Your task to perform on an android device: turn off javascript in the chrome app Image 0: 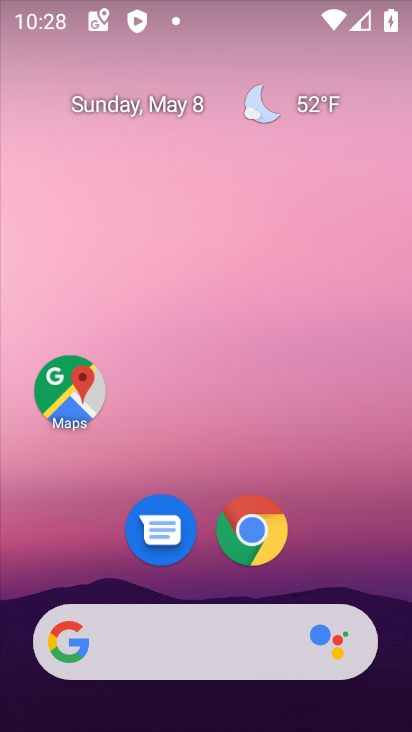
Step 0: drag from (353, 556) to (349, 122)
Your task to perform on an android device: turn off javascript in the chrome app Image 1: 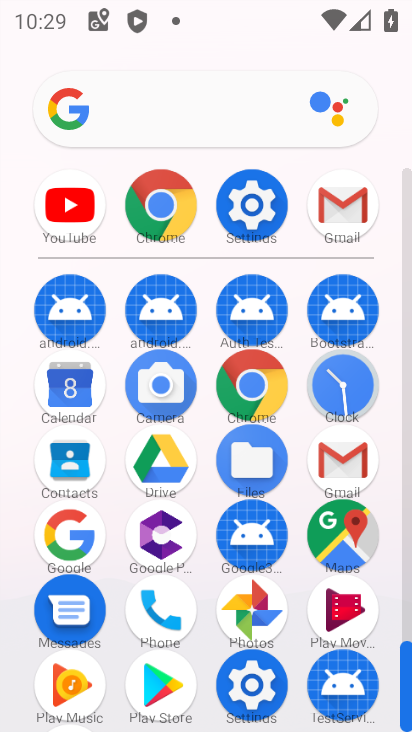
Step 1: drag from (284, 594) to (284, 242)
Your task to perform on an android device: turn off javascript in the chrome app Image 2: 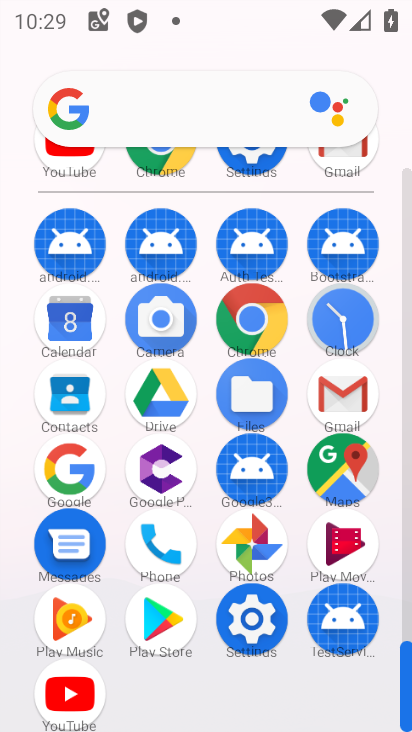
Step 2: click (261, 323)
Your task to perform on an android device: turn off javascript in the chrome app Image 3: 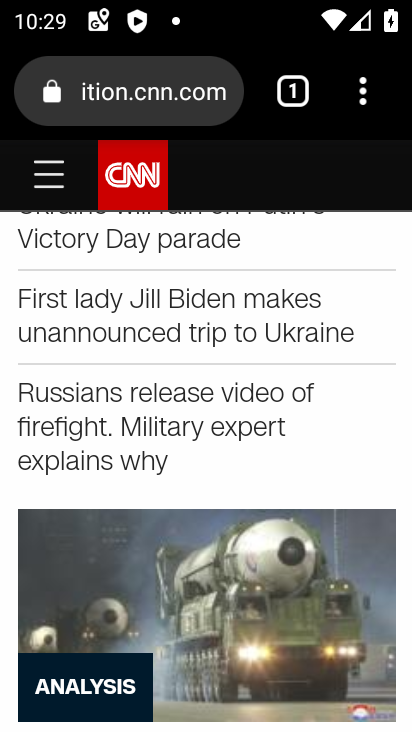
Step 3: drag from (359, 111) to (251, 568)
Your task to perform on an android device: turn off javascript in the chrome app Image 4: 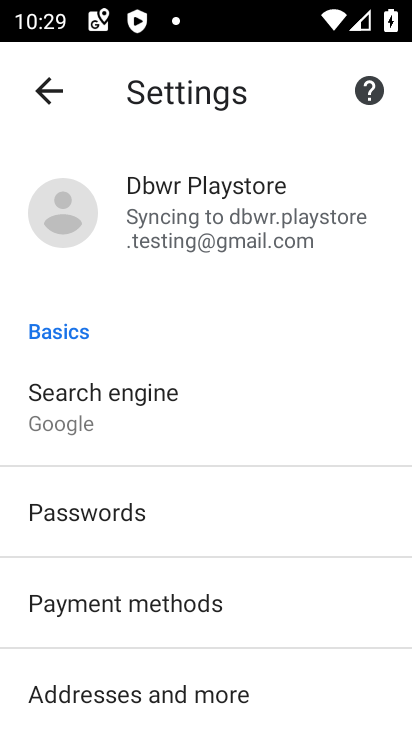
Step 4: drag from (237, 616) to (247, 320)
Your task to perform on an android device: turn off javascript in the chrome app Image 5: 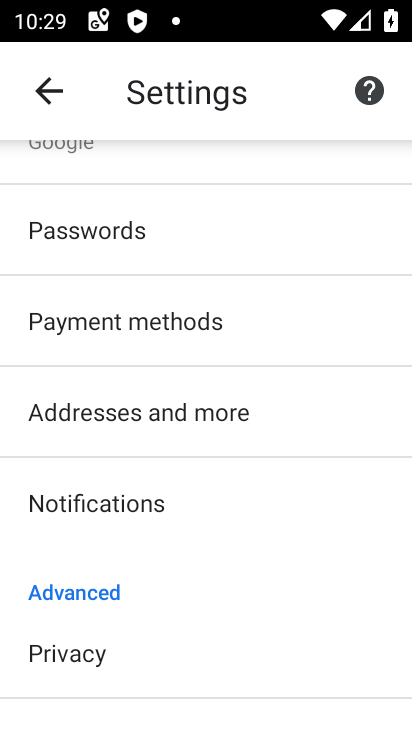
Step 5: drag from (247, 621) to (275, 361)
Your task to perform on an android device: turn off javascript in the chrome app Image 6: 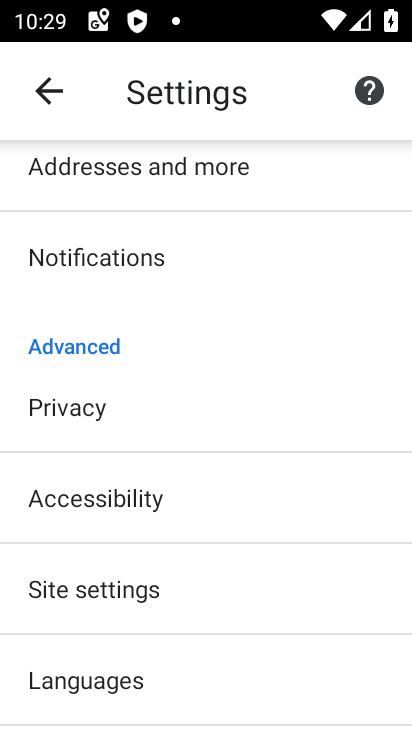
Step 6: drag from (237, 689) to (260, 441)
Your task to perform on an android device: turn off javascript in the chrome app Image 7: 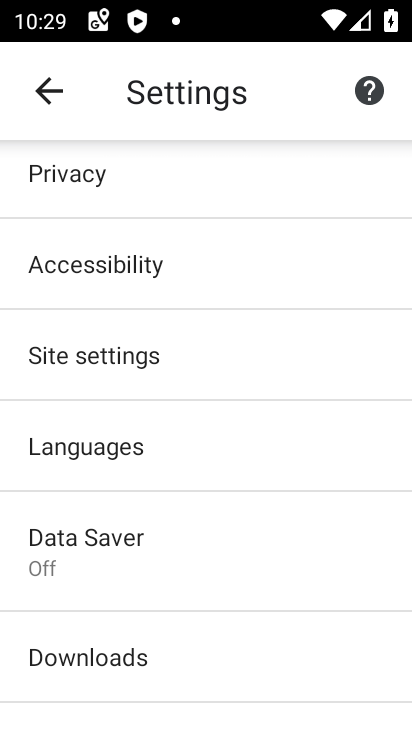
Step 7: drag from (208, 663) to (240, 383)
Your task to perform on an android device: turn off javascript in the chrome app Image 8: 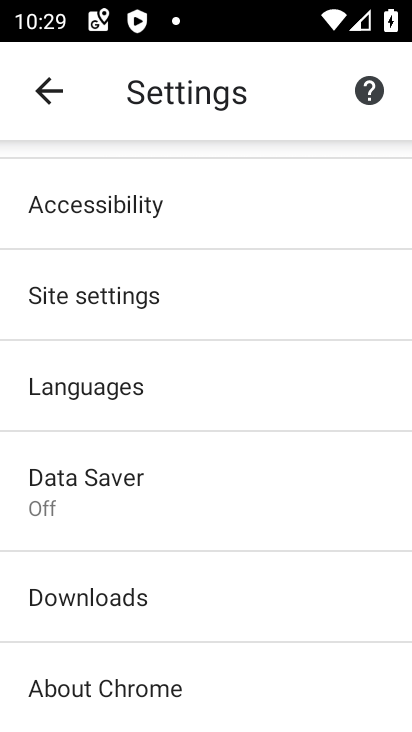
Step 8: click (154, 306)
Your task to perform on an android device: turn off javascript in the chrome app Image 9: 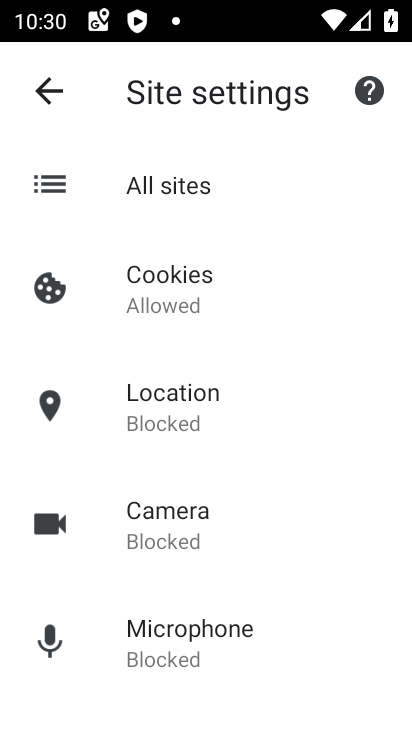
Step 9: drag from (259, 656) to (260, 384)
Your task to perform on an android device: turn off javascript in the chrome app Image 10: 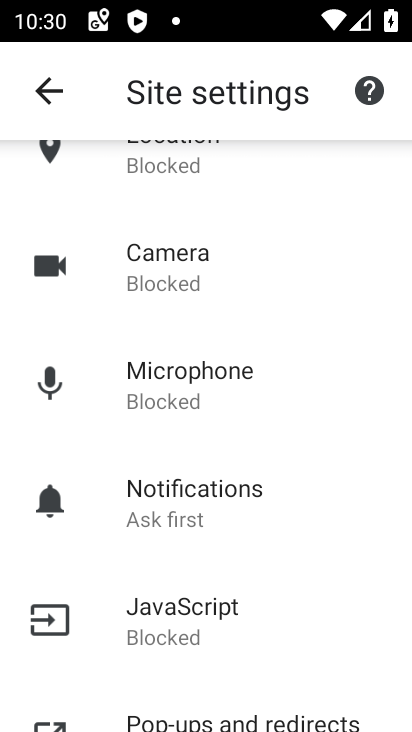
Step 10: click (252, 608)
Your task to perform on an android device: turn off javascript in the chrome app Image 11: 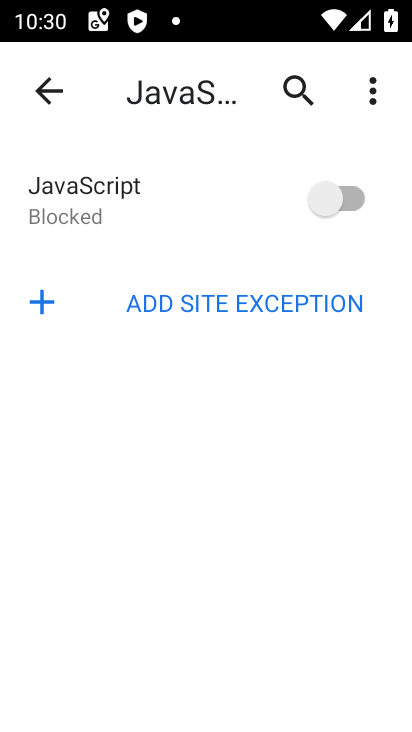
Step 11: task complete